Your task to perform on an android device: Go to network settings Image 0: 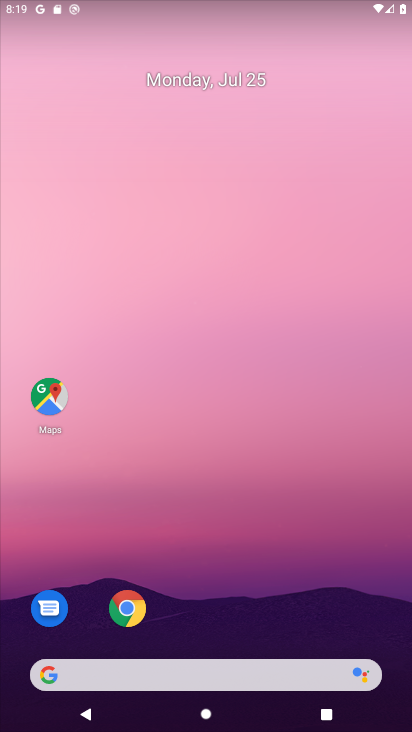
Step 0: drag from (233, 616) to (233, 144)
Your task to perform on an android device: Go to network settings Image 1: 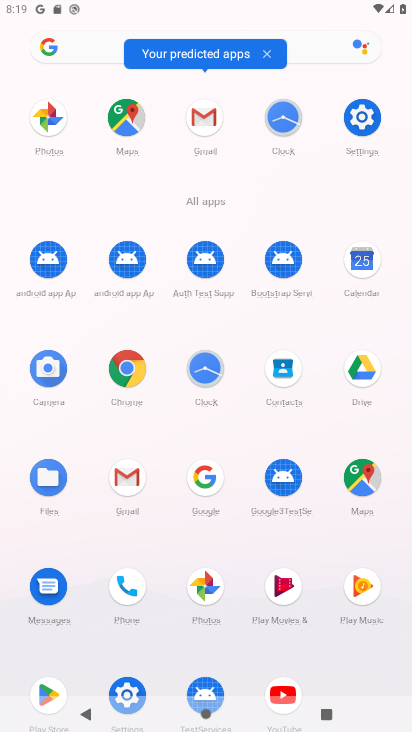
Step 1: click (358, 107)
Your task to perform on an android device: Go to network settings Image 2: 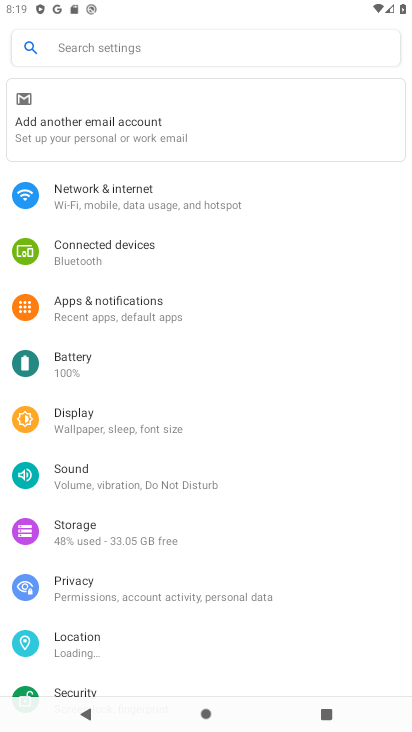
Step 2: click (168, 213)
Your task to perform on an android device: Go to network settings Image 3: 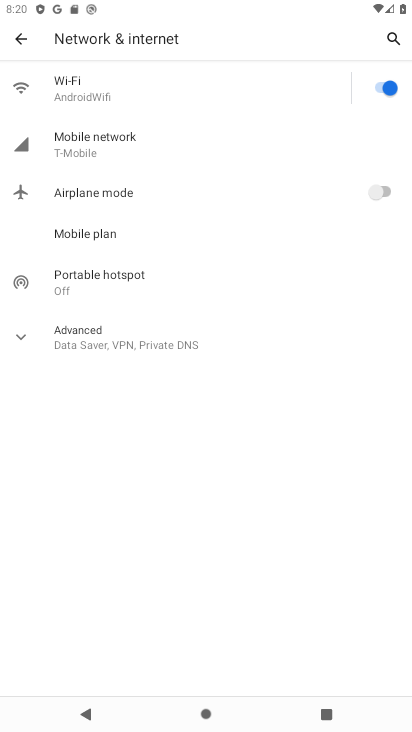
Step 3: task complete